Your task to perform on an android device: turn off picture-in-picture Image 0: 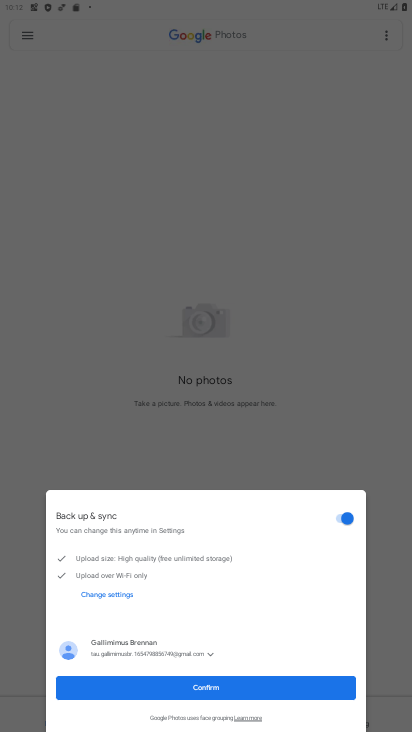
Step 0: press home button
Your task to perform on an android device: turn off picture-in-picture Image 1: 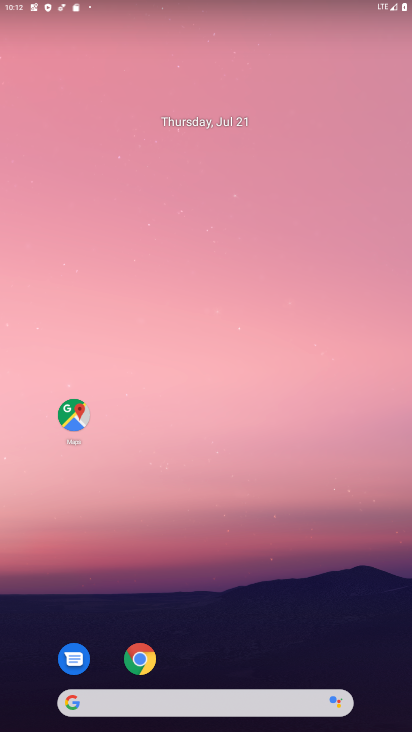
Step 1: drag from (327, 654) to (303, 117)
Your task to perform on an android device: turn off picture-in-picture Image 2: 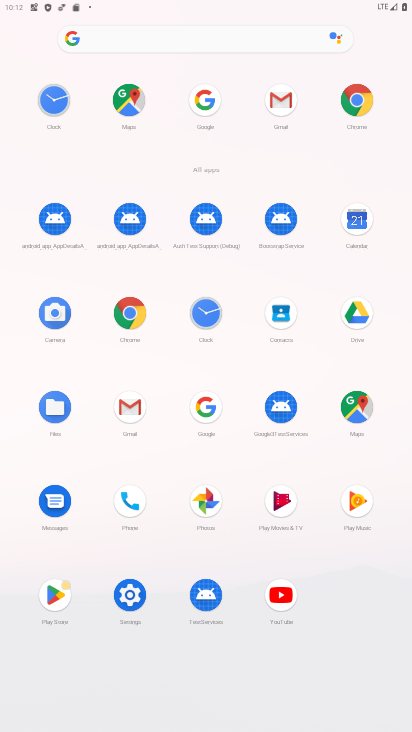
Step 2: click (360, 98)
Your task to perform on an android device: turn off picture-in-picture Image 3: 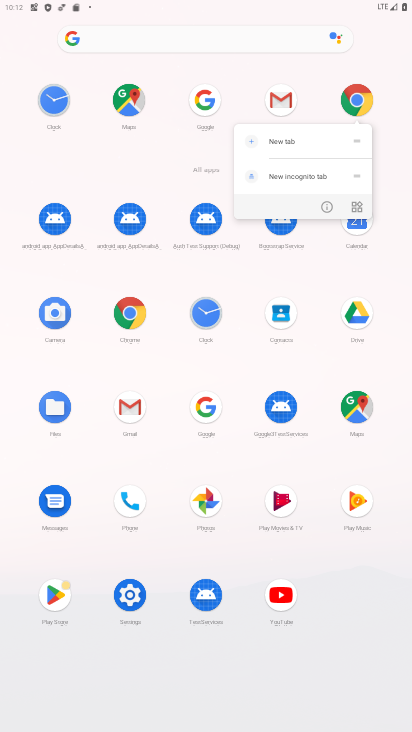
Step 3: click (329, 208)
Your task to perform on an android device: turn off picture-in-picture Image 4: 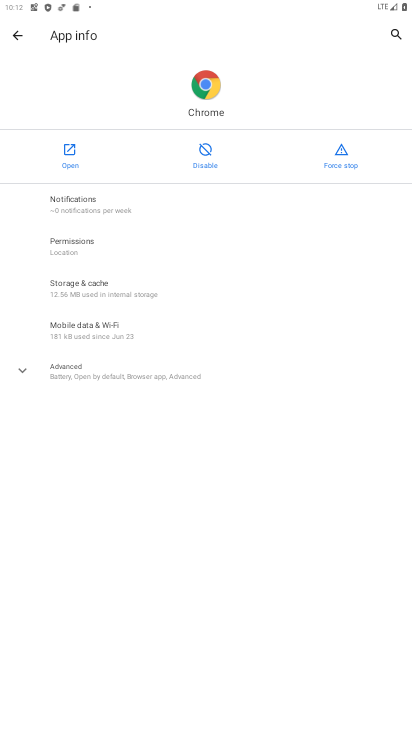
Step 4: click (137, 377)
Your task to perform on an android device: turn off picture-in-picture Image 5: 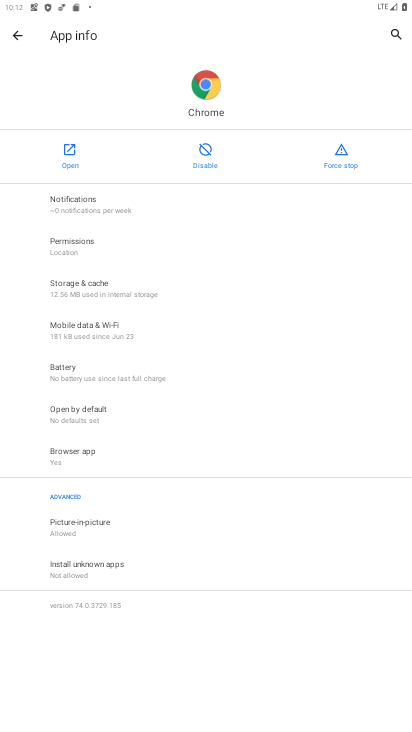
Step 5: click (98, 528)
Your task to perform on an android device: turn off picture-in-picture Image 6: 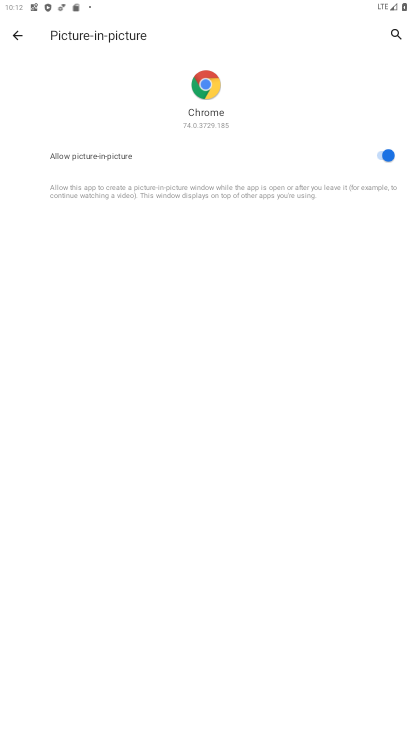
Step 6: click (383, 161)
Your task to perform on an android device: turn off picture-in-picture Image 7: 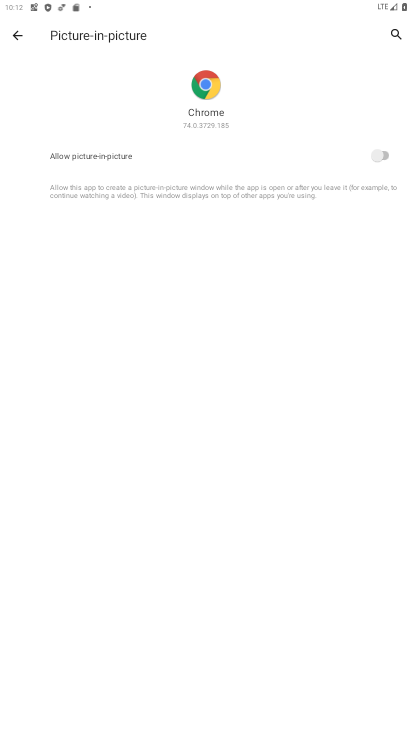
Step 7: task complete